Your task to perform on an android device: turn pop-ups off in chrome Image 0: 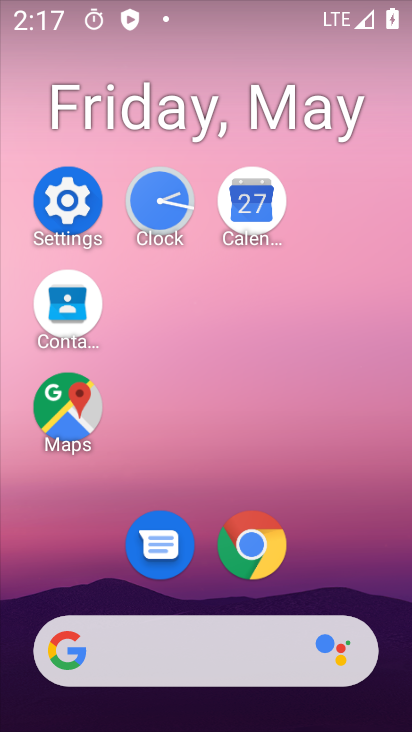
Step 0: click (264, 551)
Your task to perform on an android device: turn pop-ups off in chrome Image 1: 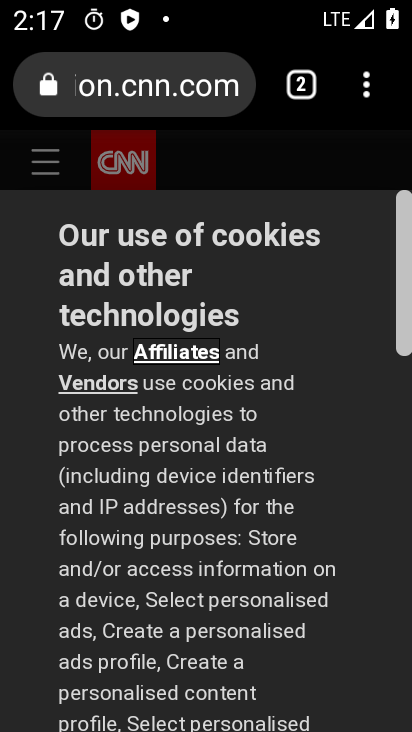
Step 1: click (377, 84)
Your task to perform on an android device: turn pop-ups off in chrome Image 2: 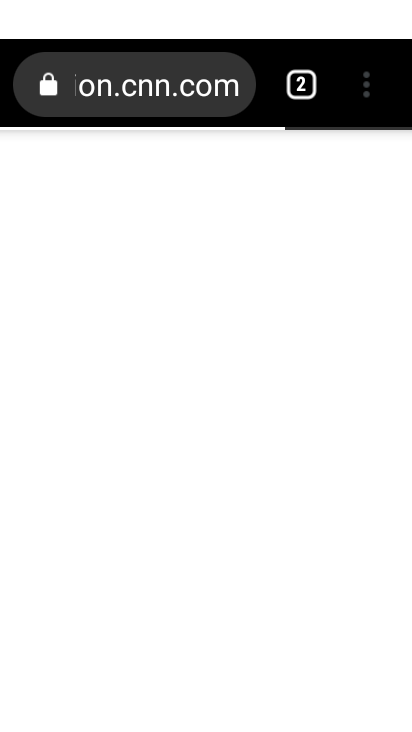
Step 2: click (376, 81)
Your task to perform on an android device: turn pop-ups off in chrome Image 3: 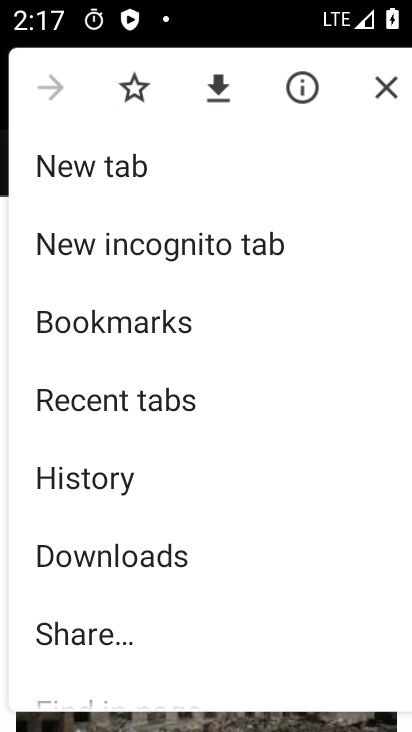
Step 3: drag from (173, 661) to (203, 255)
Your task to perform on an android device: turn pop-ups off in chrome Image 4: 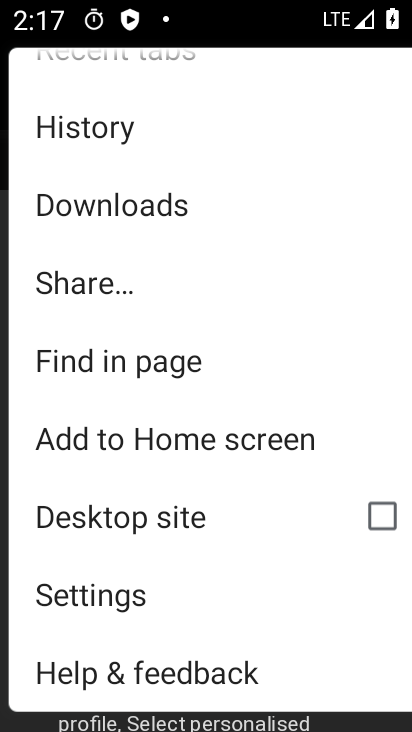
Step 4: click (157, 581)
Your task to perform on an android device: turn pop-ups off in chrome Image 5: 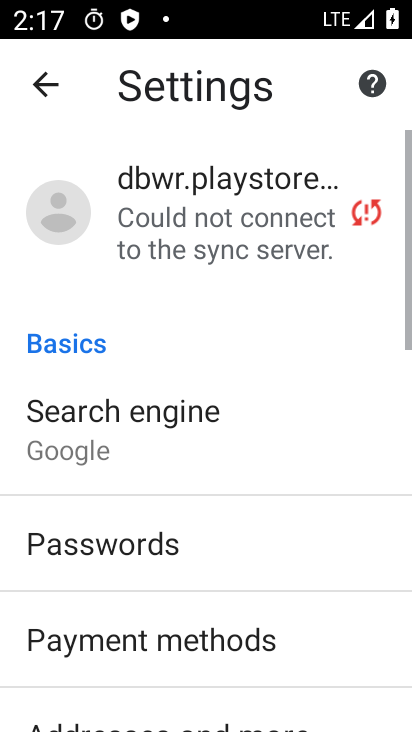
Step 5: drag from (157, 581) to (169, 181)
Your task to perform on an android device: turn pop-ups off in chrome Image 6: 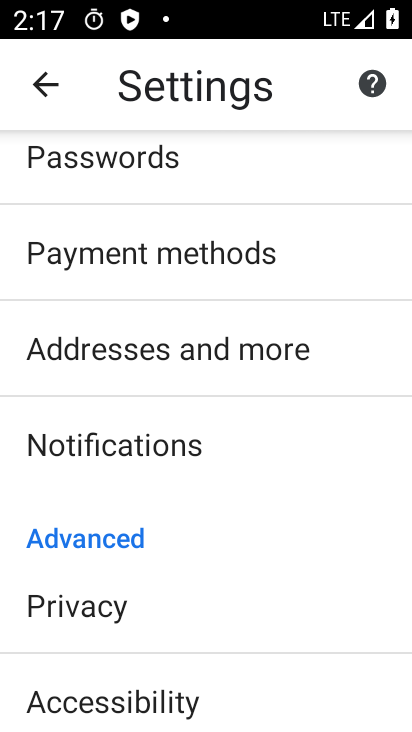
Step 6: drag from (189, 603) to (214, 242)
Your task to perform on an android device: turn pop-ups off in chrome Image 7: 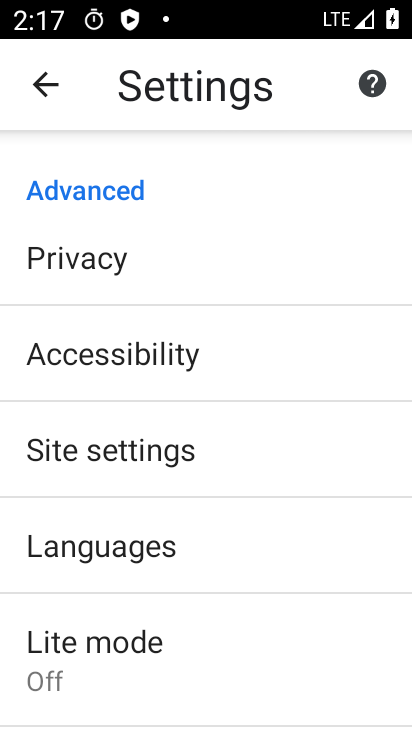
Step 7: click (184, 454)
Your task to perform on an android device: turn pop-ups off in chrome Image 8: 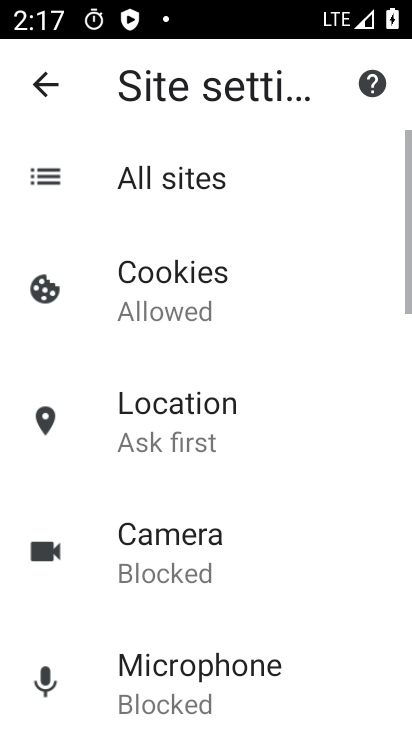
Step 8: drag from (207, 569) to (217, 237)
Your task to perform on an android device: turn pop-ups off in chrome Image 9: 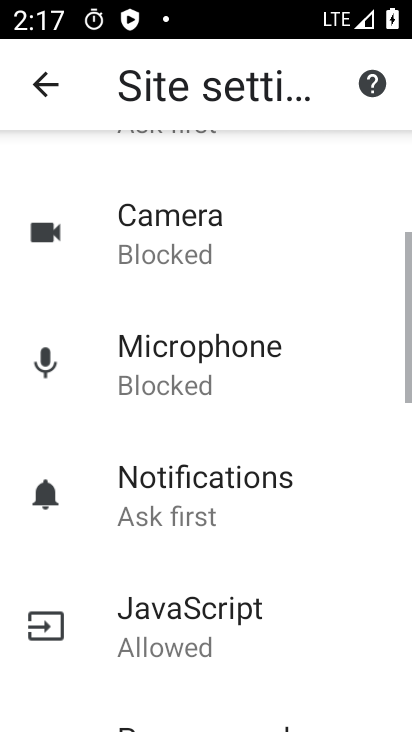
Step 9: drag from (201, 650) to (210, 355)
Your task to perform on an android device: turn pop-ups off in chrome Image 10: 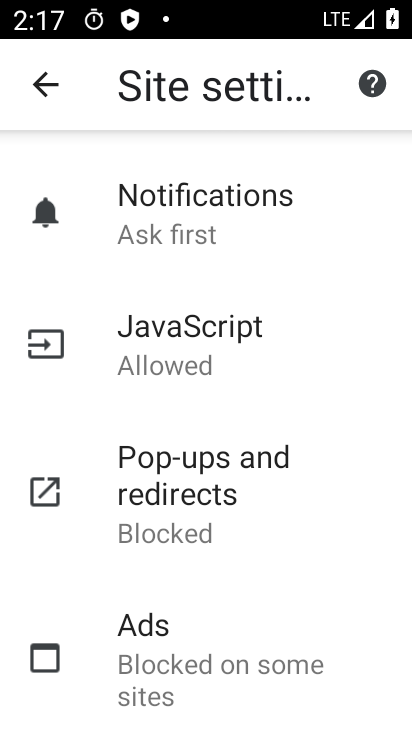
Step 10: click (239, 483)
Your task to perform on an android device: turn pop-ups off in chrome Image 11: 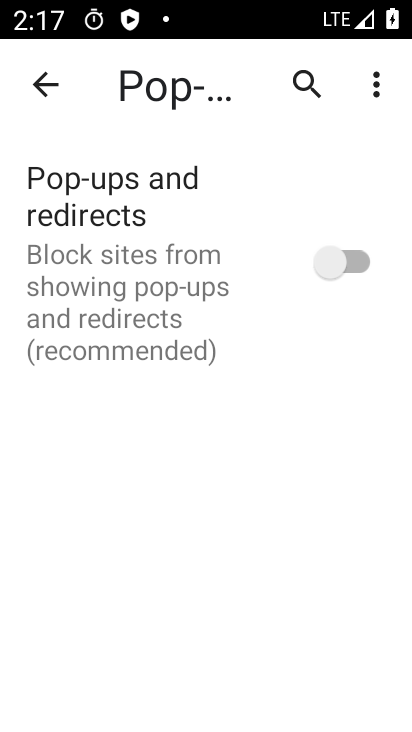
Step 11: task complete